Your task to perform on an android device: Go to Yahoo.com Image 0: 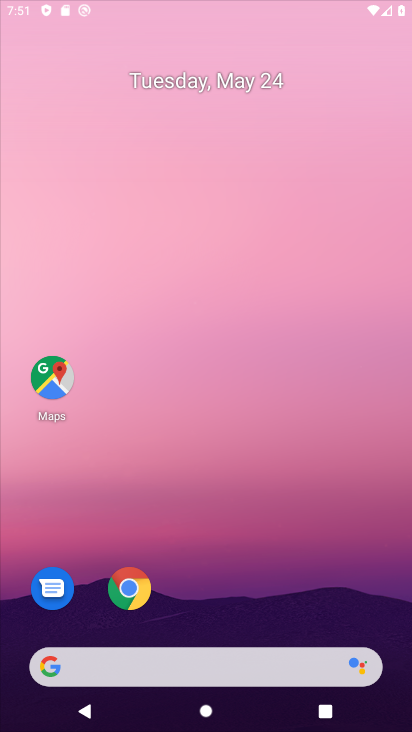
Step 0: drag from (195, 632) to (259, 315)
Your task to perform on an android device: Go to Yahoo.com Image 1: 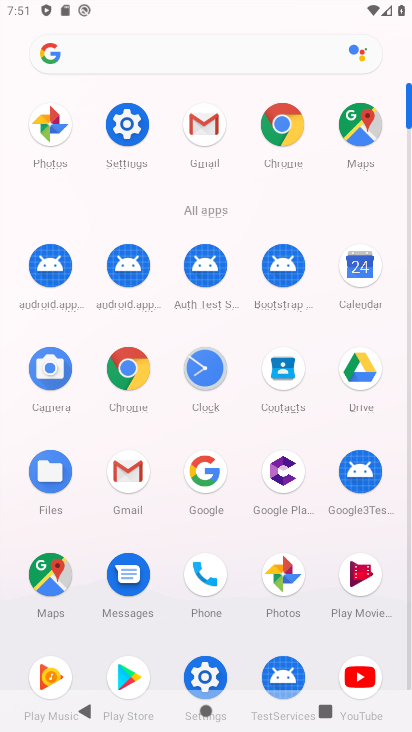
Step 1: click (165, 51)
Your task to perform on an android device: Go to Yahoo.com Image 2: 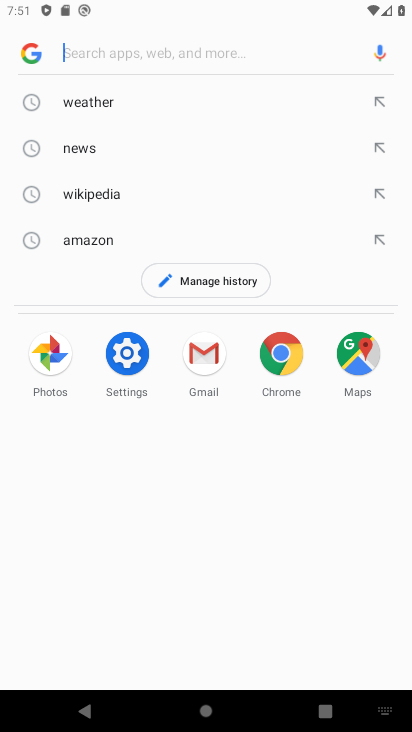
Step 2: type "yahoo.com"
Your task to perform on an android device: Go to Yahoo.com Image 3: 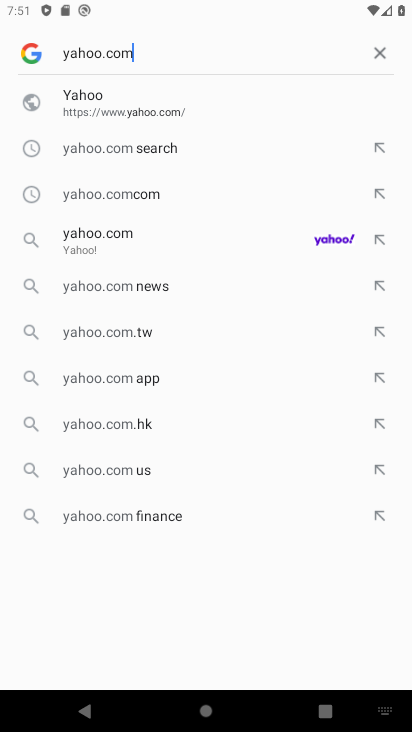
Step 3: click (166, 231)
Your task to perform on an android device: Go to Yahoo.com Image 4: 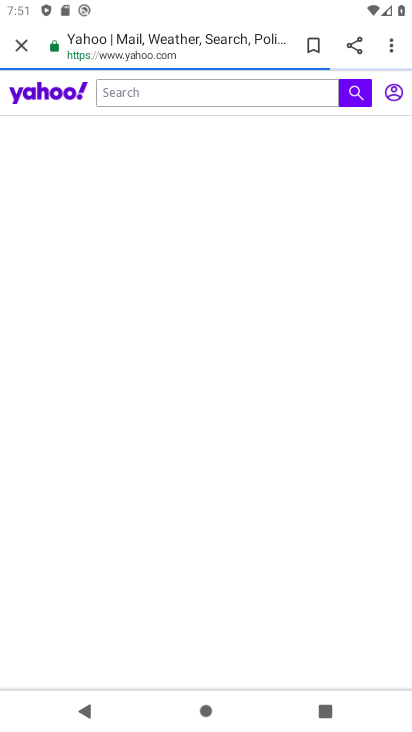
Step 4: task complete